Your task to perform on an android device: Open ESPN.com Image 0: 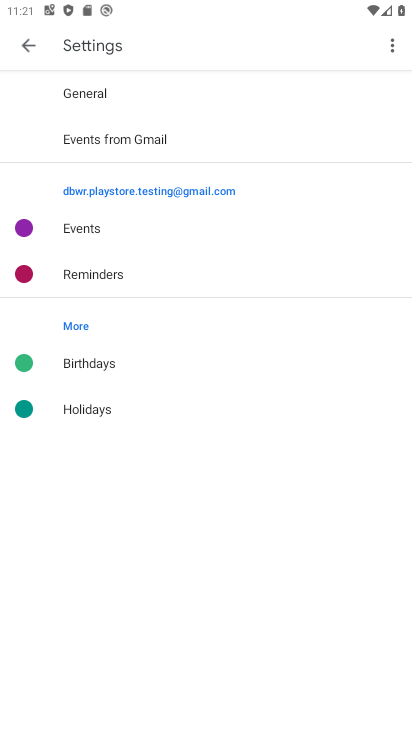
Step 0: press home button
Your task to perform on an android device: Open ESPN.com Image 1: 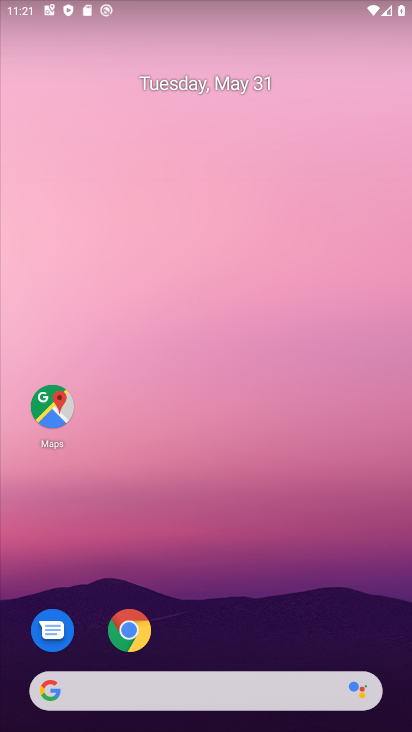
Step 1: click (141, 639)
Your task to perform on an android device: Open ESPN.com Image 2: 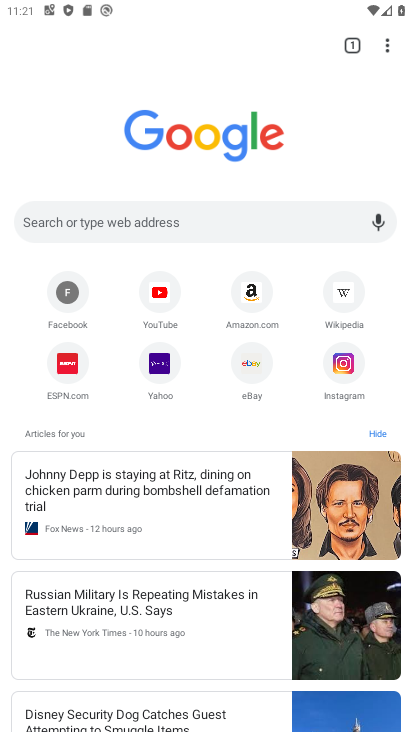
Step 2: click (72, 368)
Your task to perform on an android device: Open ESPN.com Image 3: 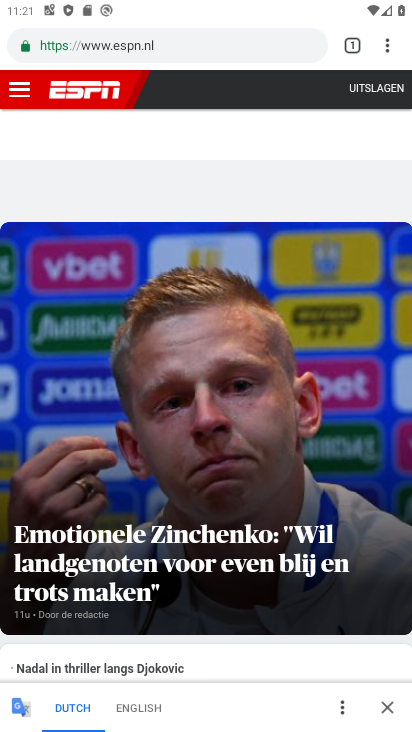
Step 3: click (388, 714)
Your task to perform on an android device: Open ESPN.com Image 4: 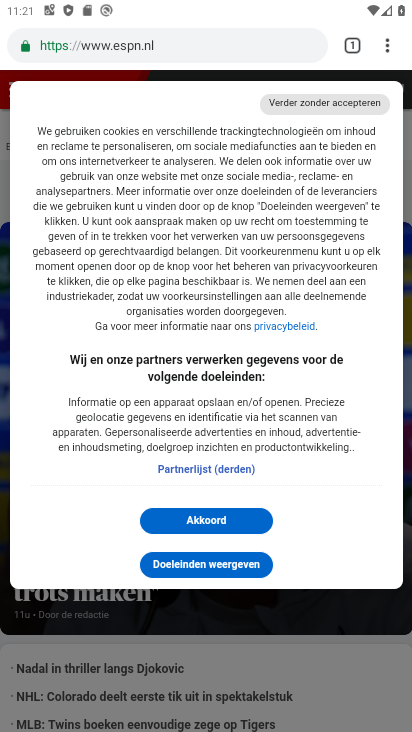
Step 4: click (252, 517)
Your task to perform on an android device: Open ESPN.com Image 5: 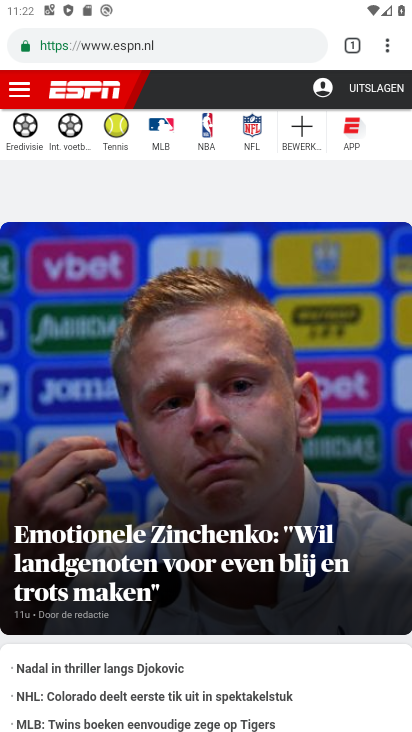
Step 5: task complete